Your task to perform on an android device: open device folders in google photos Image 0: 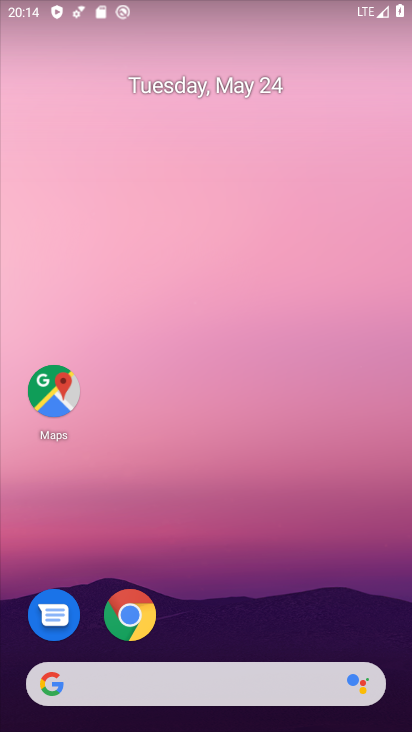
Step 0: drag from (150, 607) to (223, 267)
Your task to perform on an android device: open device folders in google photos Image 1: 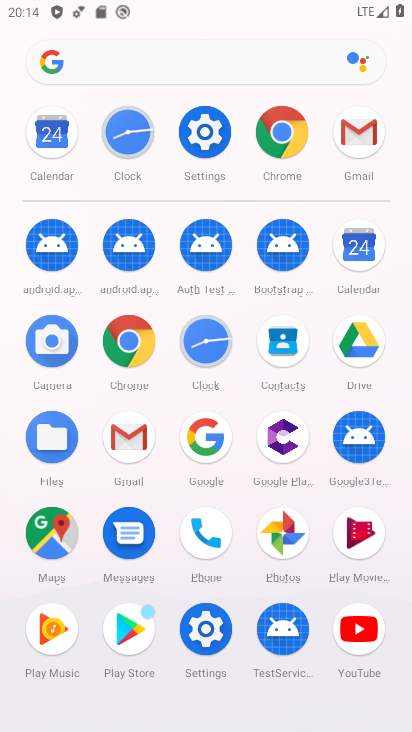
Step 1: click (285, 518)
Your task to perform on an android device: open device folders in google photos Image 2: 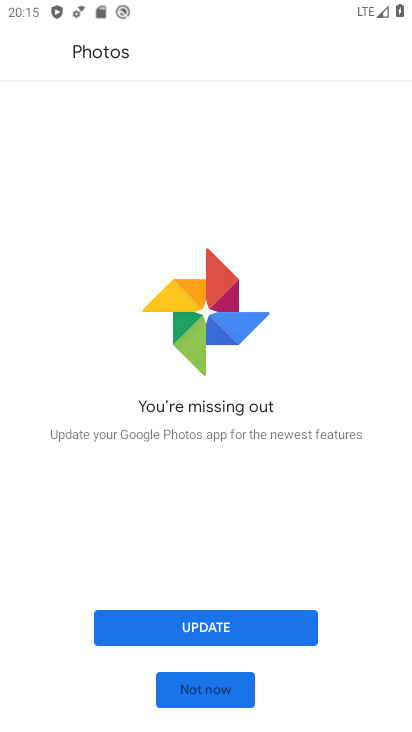
Step 2: click (206, 680)
Your task to perform on an android device: open device folders in google photos Image 3: 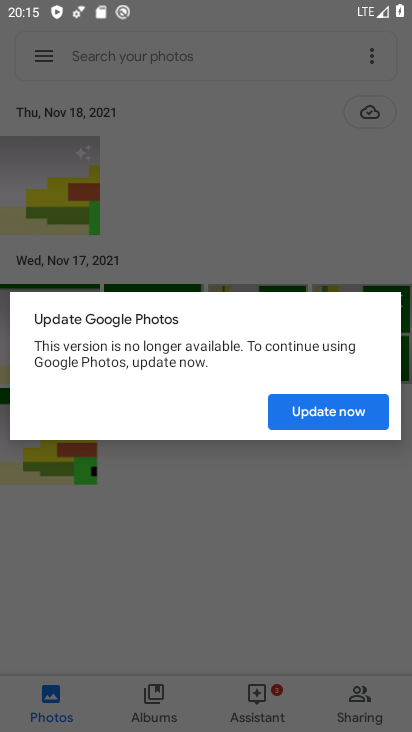
Step 3: click (346, 392)
Your task to perform on an android device: open device folders in google photos Image 4: 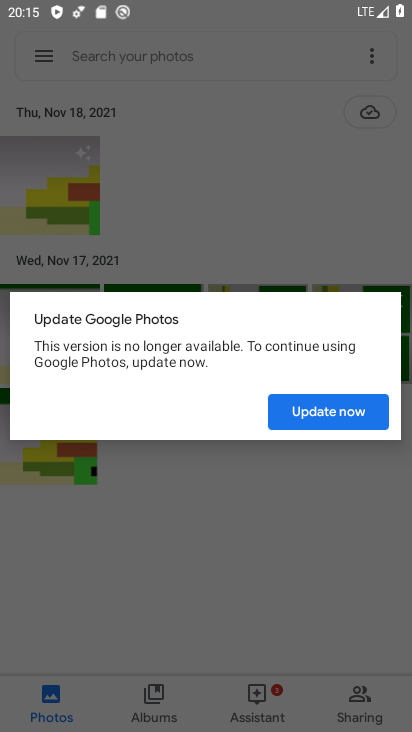
Step 4: click (342, 409)
Your task to perform on an android device: open device folders in google photos Image 5: 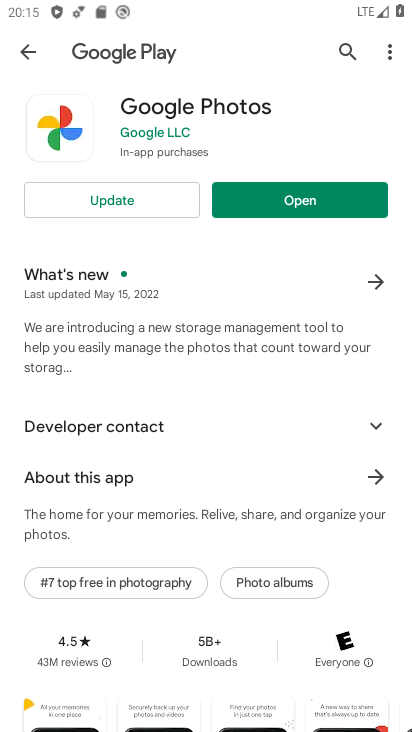
Step 5: task complete